Your task to perform on an android device: find which apps use the phone's location Image 0: 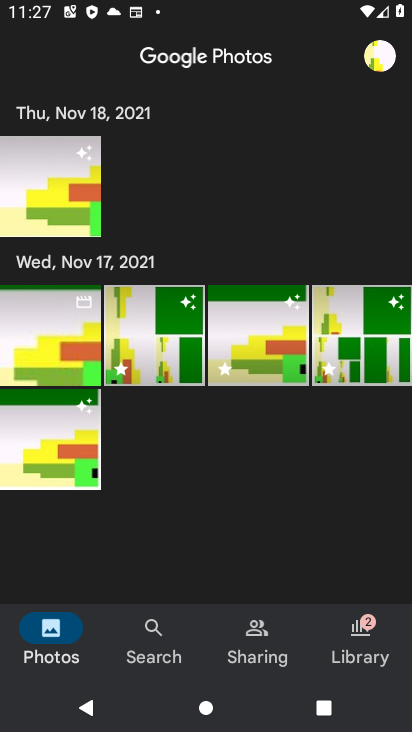
Step 0: press home button
Your task to perform on an android device: find which apps use the phone's location Image 1: 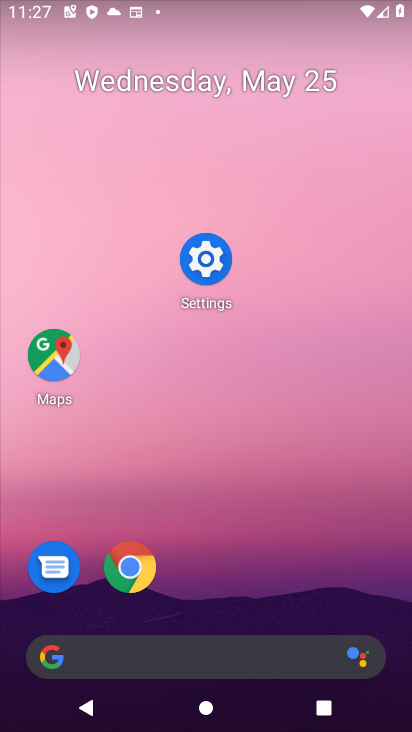
Step 1: drag from (315, 574) to (255, 189)
Your task to perform on an android device: find which apps use the phone's location Image 2: 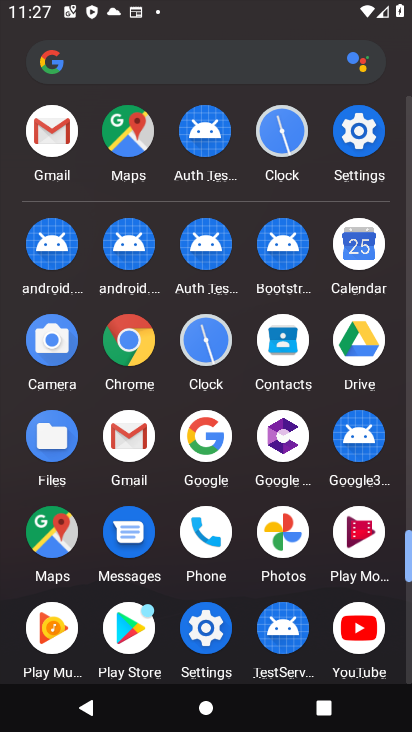
Step 2: click (356, 131)
Your task to perform on an android device: find which apps use the phone's location Image 3: 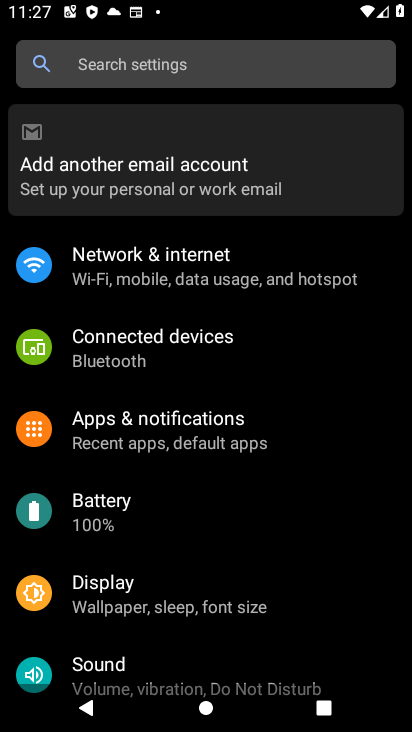
Step 3: click (215, 424)
Your task to perform on an android device: find which apps use the phone's location Image 4: 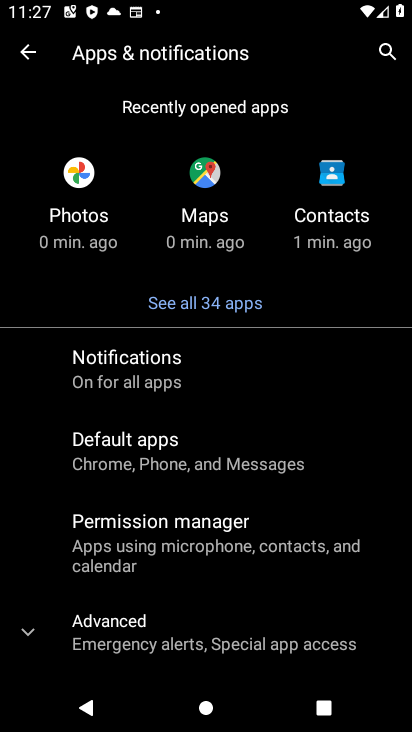
Step 4: drag from (200, 613) to (199, 444)
Your task to perform on an android device: find which apps use the phone's location Image 5: 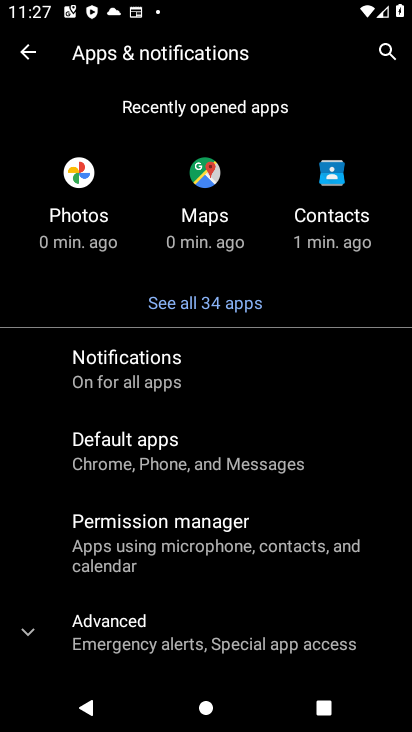
Step 5: click (201, 378)
Your task to perform on an android device: find which apps use the phone's location Image 6: 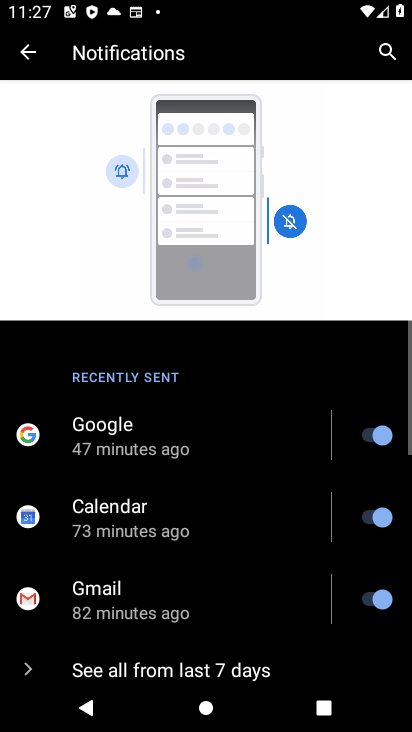
Step 6: task complete